Your task to perform on an android device: Search for usb-b on bestbuy.com, select the first entry, and add it to the cart. Image 0: 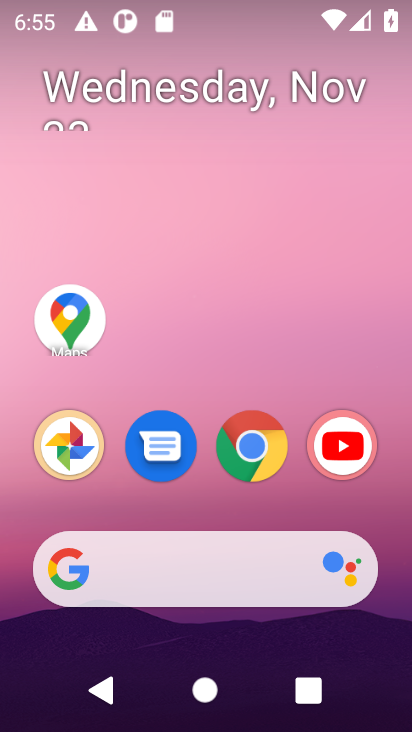
Step 0: click (221, 586)
Your task to perform on an android device: Search for usb-b on bestbuy.com, select the first entry, and add it to the cart. Image 1: 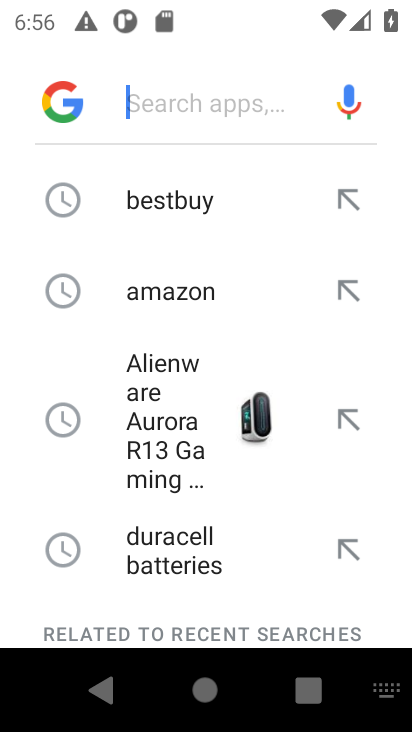
Step 1: type "bestbuy.com"
Your task to perform on an android device: Search for usb-b on bestbuy.com, select the first entry, and add it to the cart. Image 2: 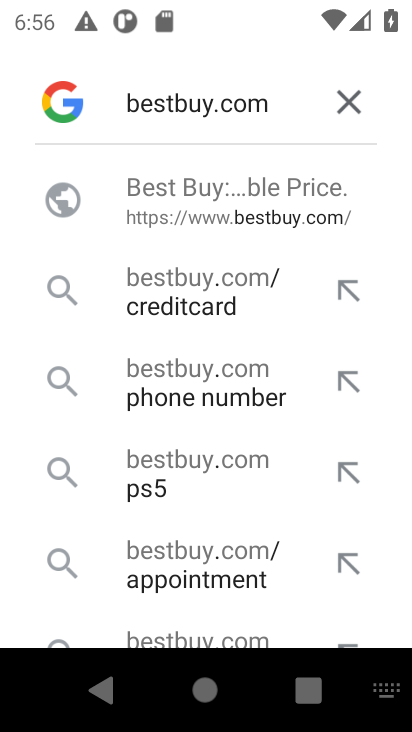
Step 2: click (194, 221)
Your task to perform on an android device: Search for usb-b on bestbuy.com, select the first entry, and add it to the cart. Image 3: 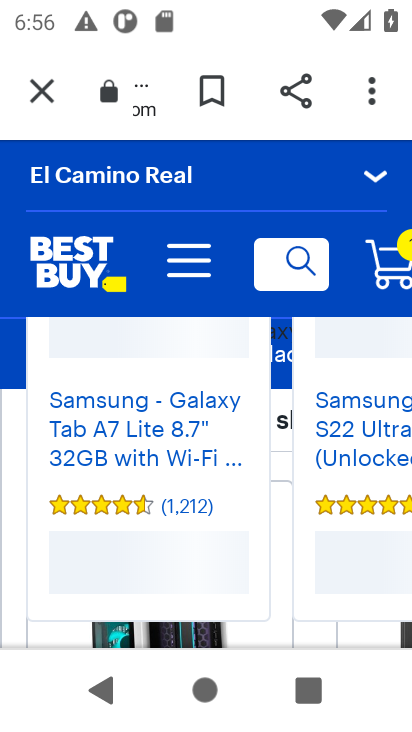
Step 3: click (270, 256)
Your task to perform on an android device: Search for usb-b on bestbuy.com, select the first entry, and add it to the cart. Image 4: 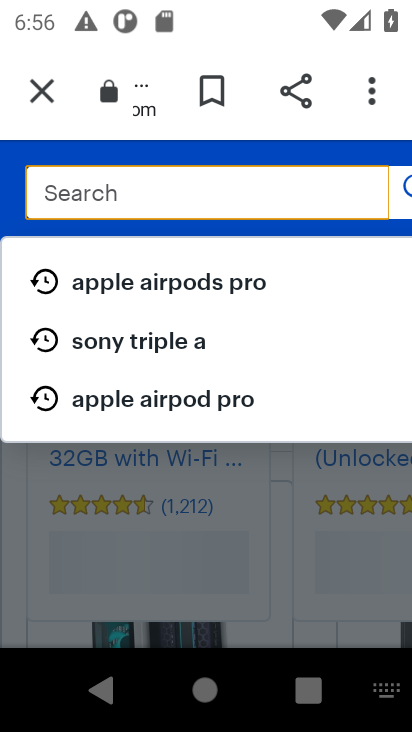
Step 4: type "usb-b"
Your task to perform on an android device: Search for usb-b on bestbuy.com, select the first entry, and add it to the cart. Image 5: 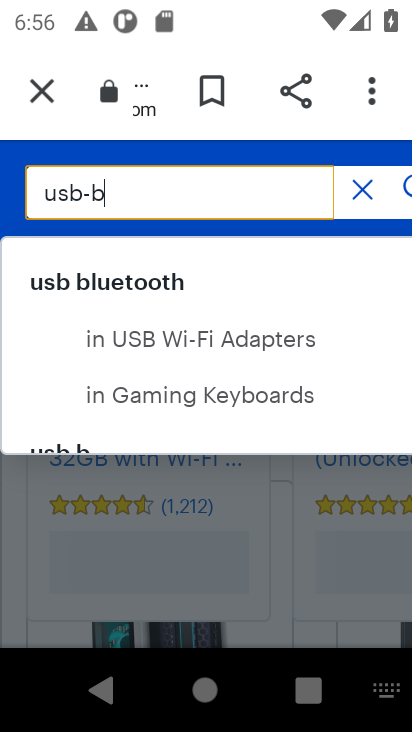
Step 5: click (397, 206)
Your task to perform on an android device: Search for usb-b on bestbuy.com, select the first entry, and add it to the cart. Image 6: 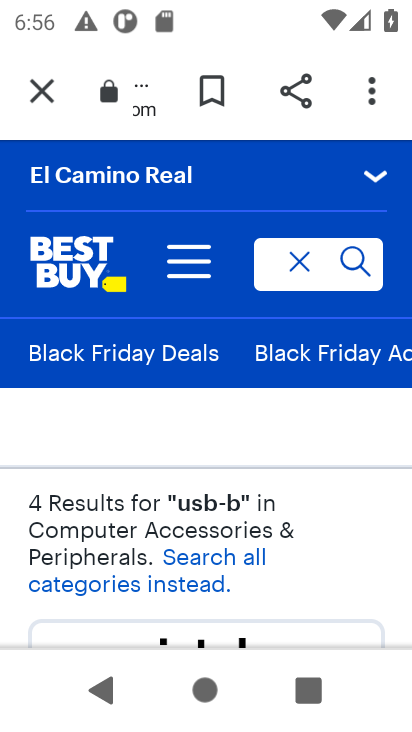
Step 6: drag from (308, 567) to (341, 268)
Your task to perform on an android device: Search for usb-b on bestbuy.com, select the first entry, and add it to the cart. Image 7: 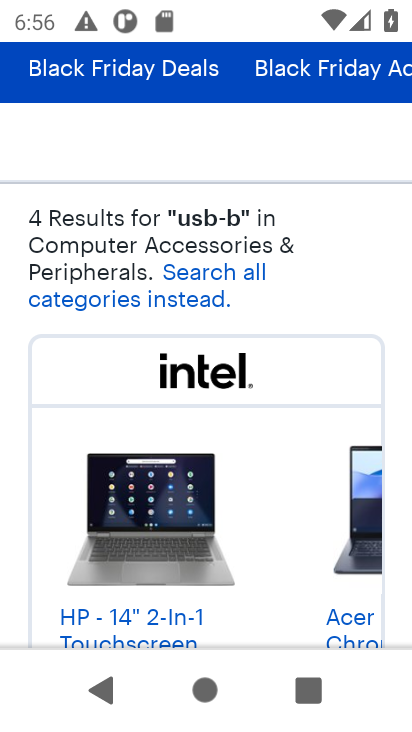
Step 7: drag from (277, 576) to (303, 181)
Your task to perform on an android device: Search for usb-b on bestbuy.com, select the first entry, and add it to the cart. Image 8: 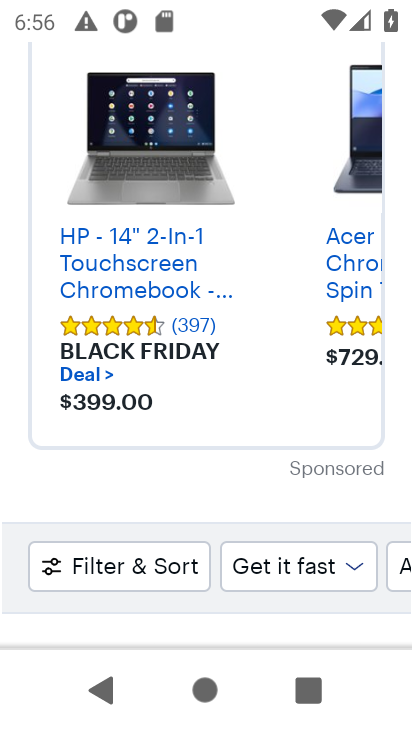
Step 8: drag from (221, 502) to (279, 167)
Your task to perform on an android device: Search for usb-b on bestbuy.com, select the first entry, and add it to the cart. Image 9: 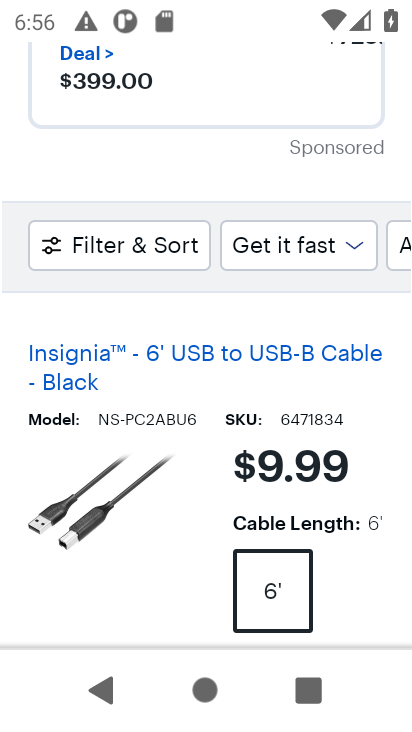
Step 9: drag from (193, 563) to (204, 287)
Your task to perform on an android device: Search for usb-b on bestbuy.com, select the first entry, and add it to the cart. Image 10: 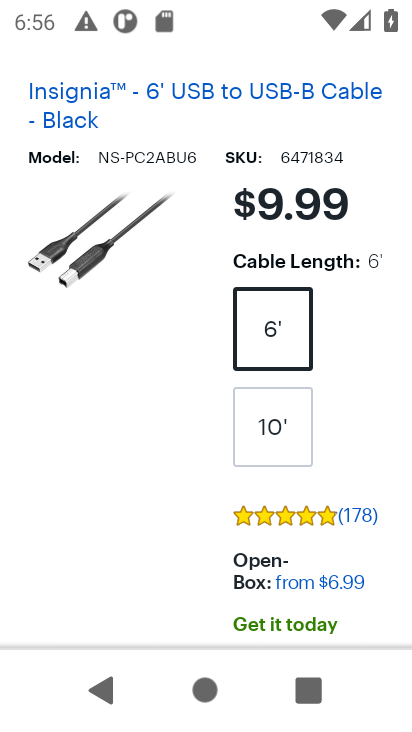
Step 10: drag from (193, 512) to (210, 198)
Your task to perform on an android device: Search for usb-b on bestbuy.com, select the first entry, and add it to the cart. Image 11: 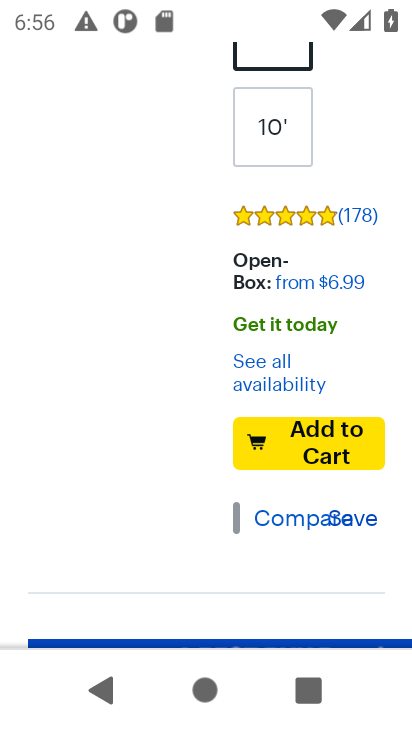
Step 11: click (338, 462)
Your task to perform on an android device: Search for usb-b on bestbuy.com, select the first entry, and add it to the cart. Image 12: 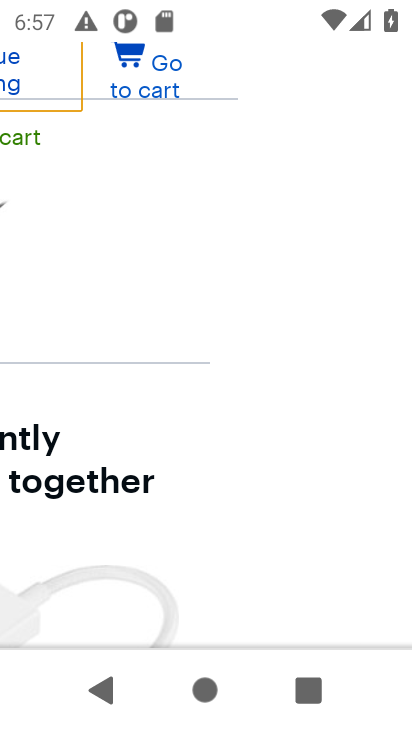
Step 12: press home button
Your task to perform on an android device: Search for usb-b on bestbuy.com, select the first entry, and add it to the cart. Image 13: 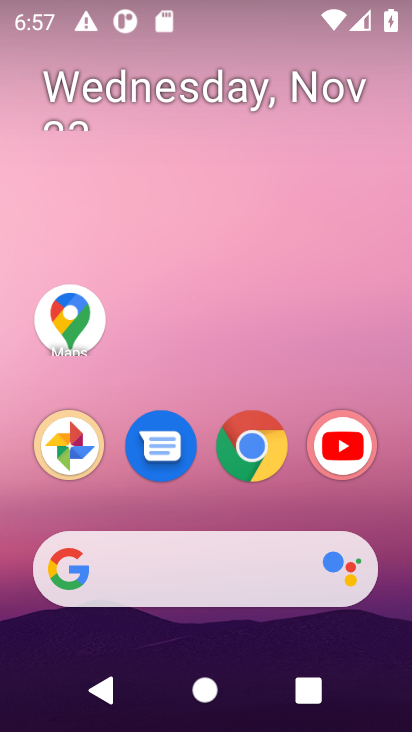
Step 13: click (260, 558)
Your task to perform on an android device: Search for usb-b on bestbuy.com, select the first entry, and add it to the cart. Image 14: 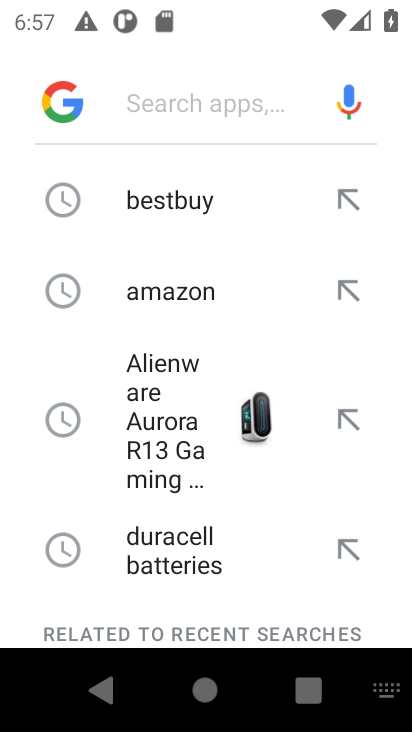
Step 14: type "bestbuy.com"
Your task to perform on an android device: Search for usb-b on bestbuy.com, select the first entry, and add it to the cart. Image 15: 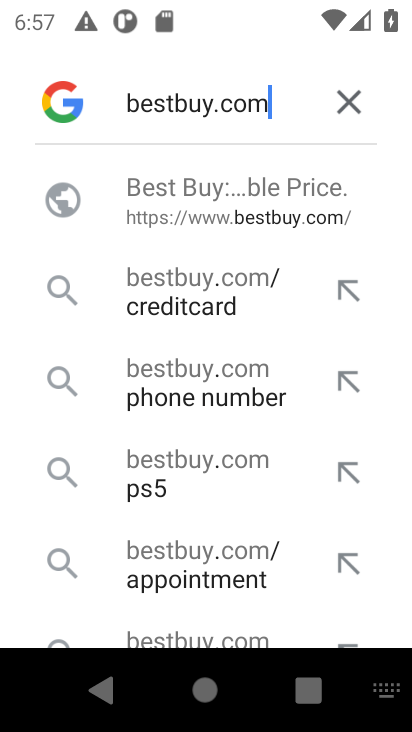
Step 15: click (201, 194)
Your task to perform on an android device: Search for usb-b on bestbuy.com, select the first entry, and add it to the cart. Image 16: 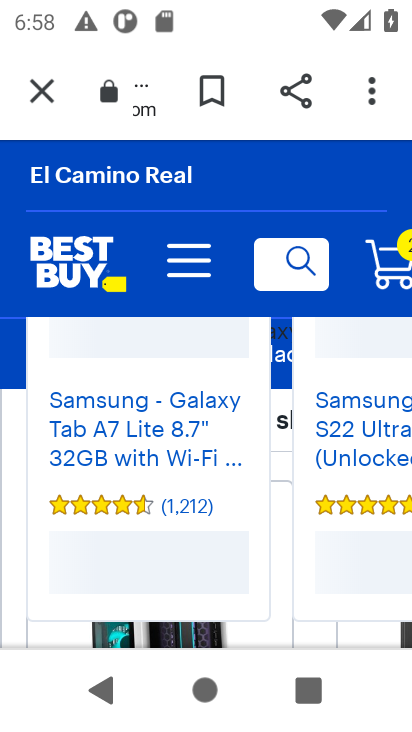
Step 16: click (277, 263)
Your task to perform on an android device: Search for usb-b on bestbuy.com, select the first entry, and add it to the cart. Image 17: 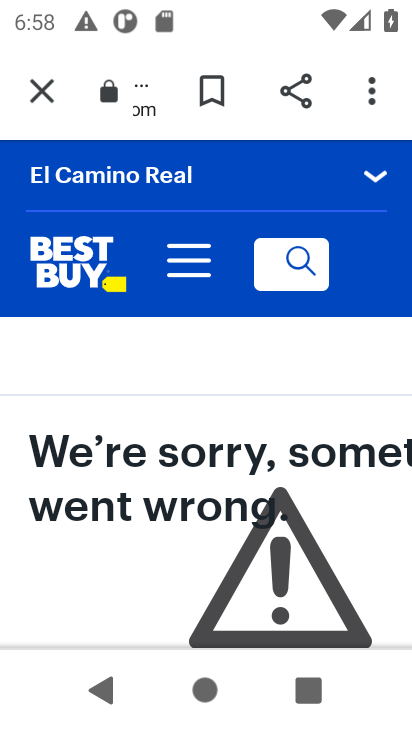
Step 17: click (277, 263)
Your task to perform on an android device: Search for usb-b on bestbuy.com, select the first entry, and add it to the cart. Image 18: 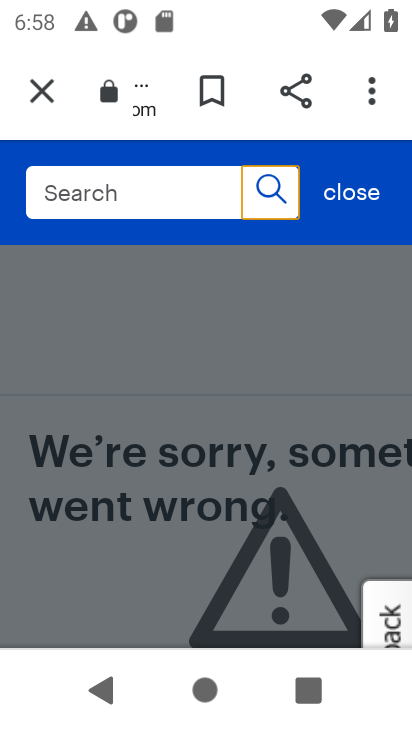
Step 18: type "usb-b "
Your task to perform on an android device: Search for usb-b on bestbuy.com, select the first entry, and add it to the cart. Image 19: 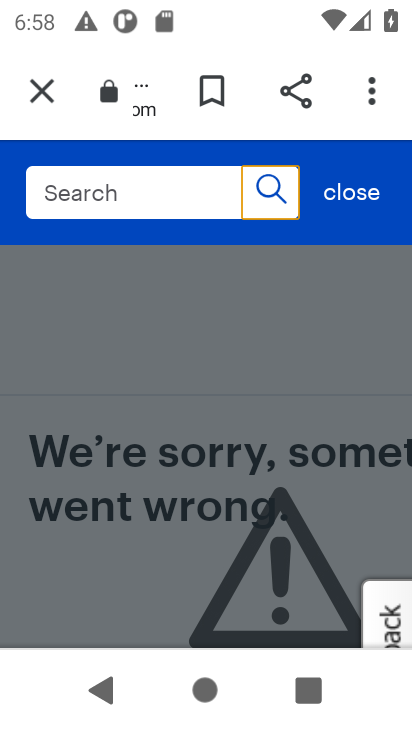
Step 19: task complete